Your task to perform on an android device: Show me popular videos on Youtube Image 0: 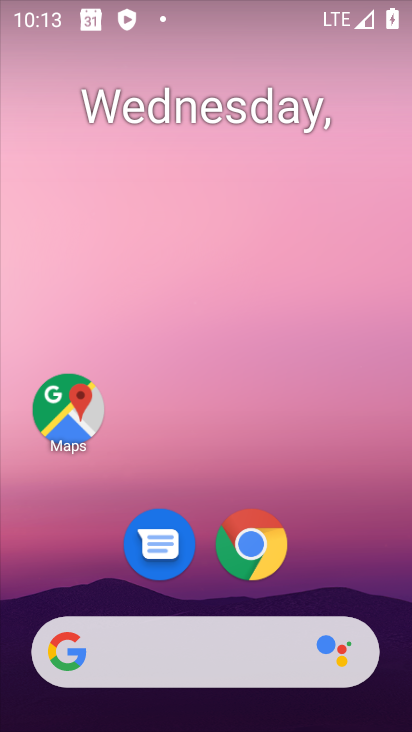
Step 0: drag from (322, 594) to (321, 152)
Your task to perform on an android device: Show me popular videos on Youtube Image 1: 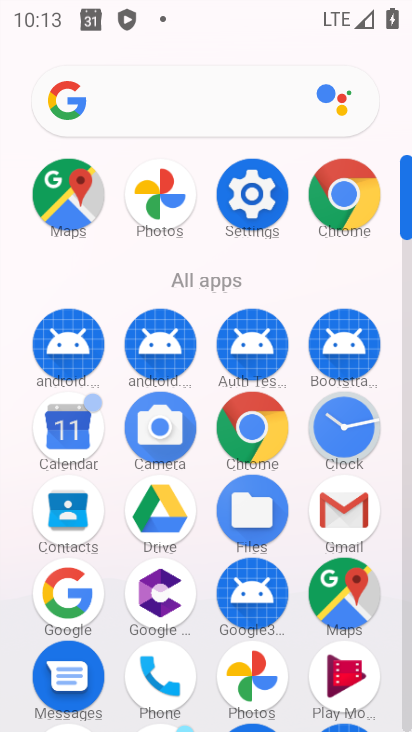
Step 1: drag from (299, 652) to (231, 194)
Your task to perform on an android device: Show me popular videos on Youtube Image 2: 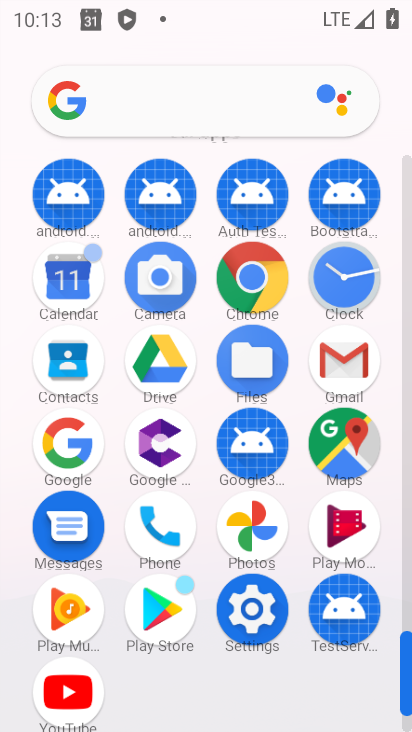
Step 2: click (61, 680)
Your task to perform on an android device: Show me popular videos on Youtube Image 3: 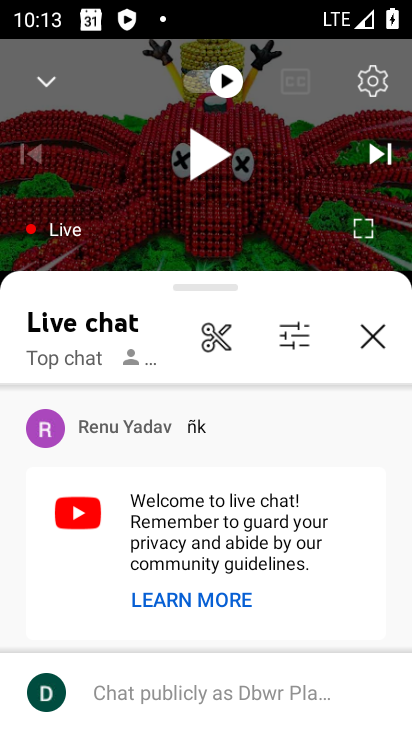
Step 3: click (62, 90)
Your task to perform on an android device: Show me popular videos on Youtube Image 4: 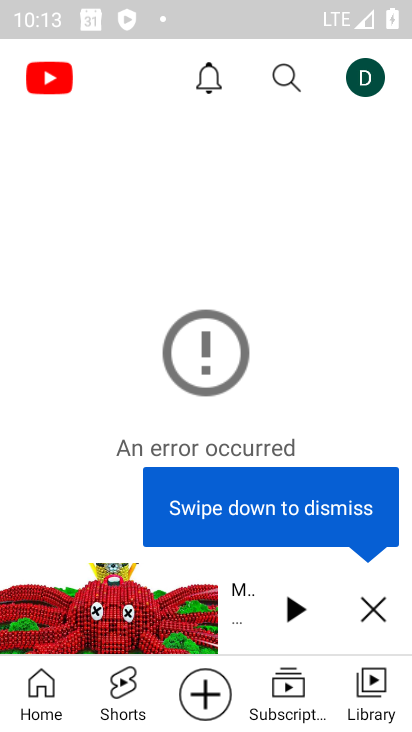
Step 4: click (65, 702)
Your task to perform on an android device: Show me popular videos on Youtube Image 5: 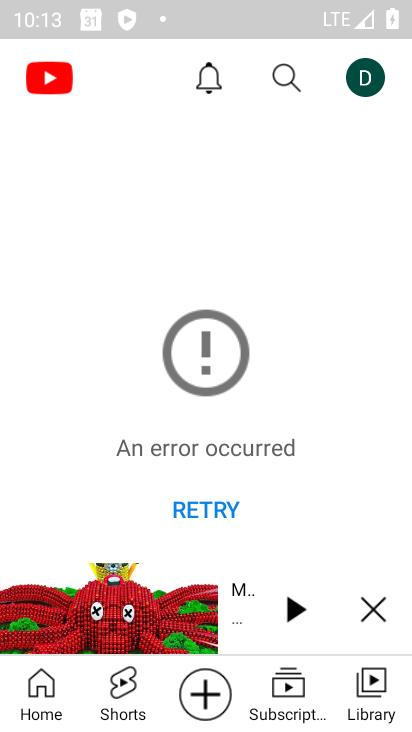
Step 5: click (211, 512)
Your task to perform on an android device: Show me popular videos on Youtube Image 6: 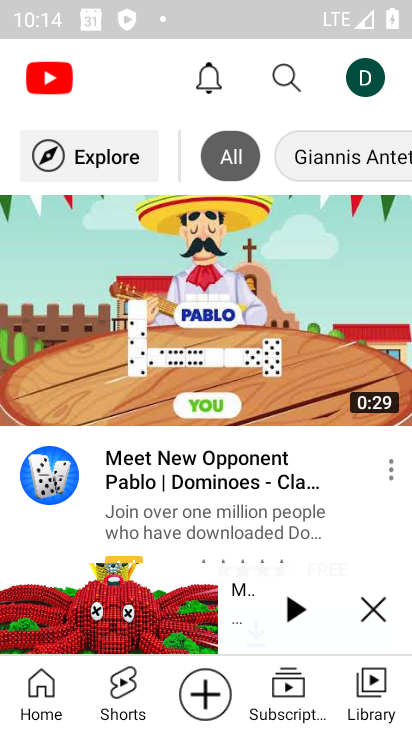
Step 6: click (360, 624)
Your task to perform on an android device: Show me popular videos on Youtube Image 7: 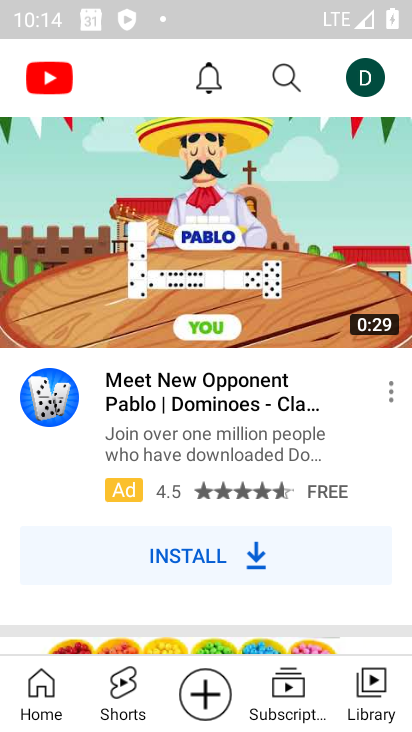
Step 7: drag from (95, 151) to (86, 444)
Your task to perform on an android device: Show me popular videos on Youtube Image 8: 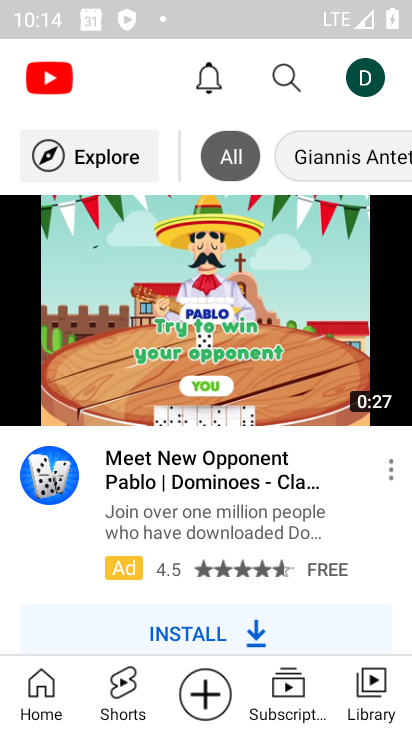
Step 8: click (79, 150)
Your task to perform on an android device: Show me popular videos on Youtube Image 9: 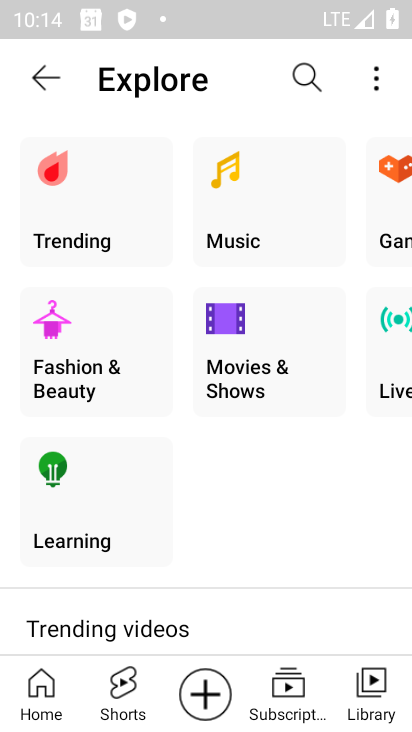
Step 9: click (57, 214)
Your task to perform on an android device: Show me popular videos on Youtube Image 10: 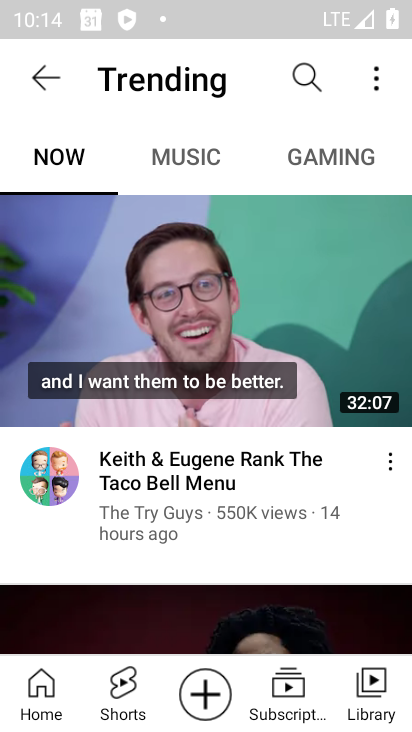
Step 10: task complete